Your task to perform on an android device: check android version Image 0: 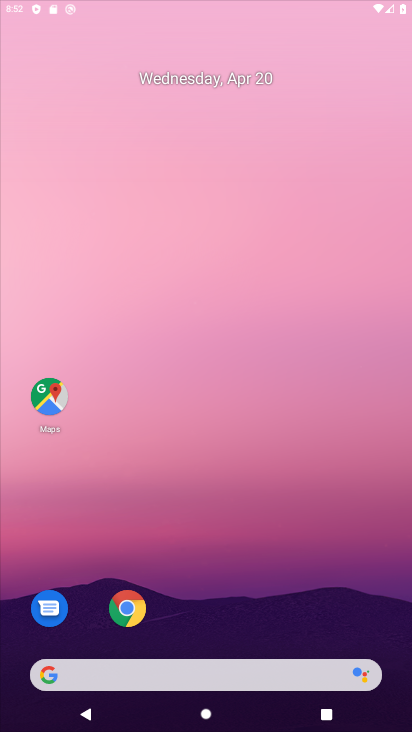
Step 0: drag from (201, 414) to (193, 71)
Your task to perform on an android device: check android version Image 1: 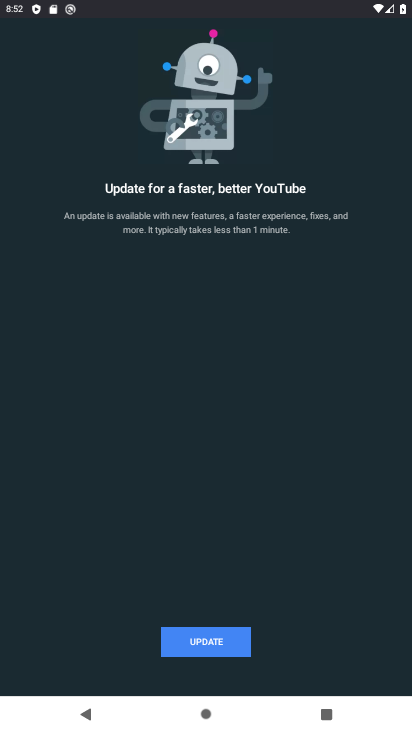
Step 1: press back button
Your task to perform on an android device: check android version Image 2: 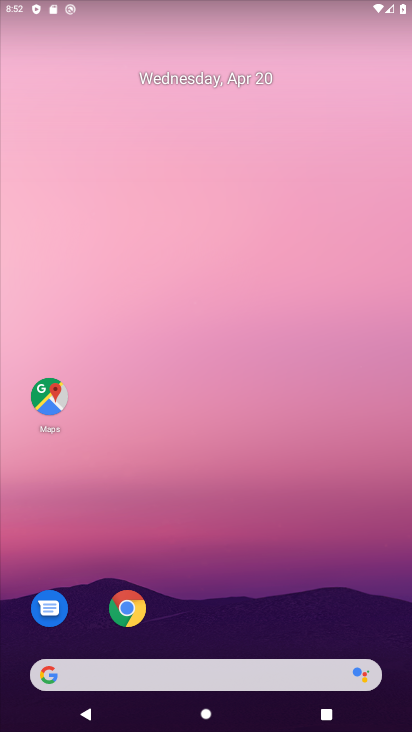
Step 2: drag from (190, 648) to (213, 81)
Your task to perform on an android device: check android version Image 3: 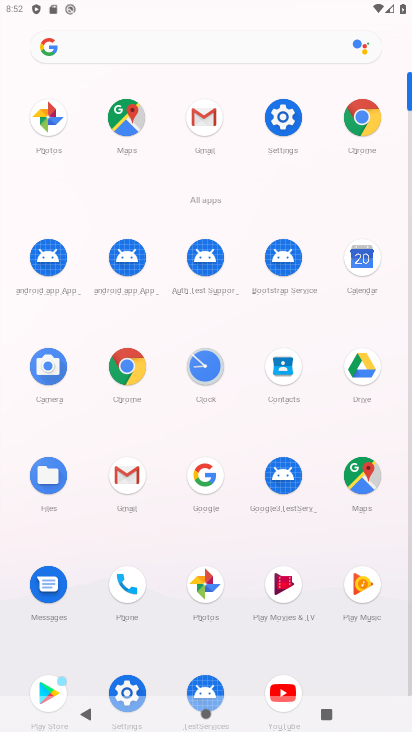
Step 3: click (278, 121)
Your task to perform on an android device: check android version Image 4: 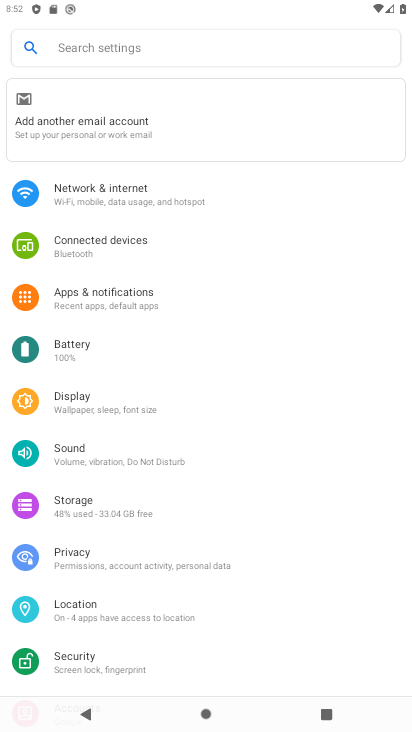
Step 4: drag from (103, 596) to (192, 166)
Your task to perform on an android device: check android version Image 5: 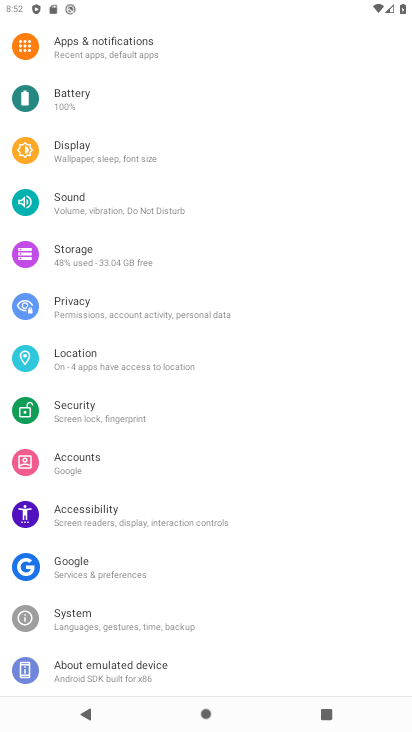
Step 5: drag from (101, 576) to (158, 311)
Your task to perform on an android device: check android version Image 6: 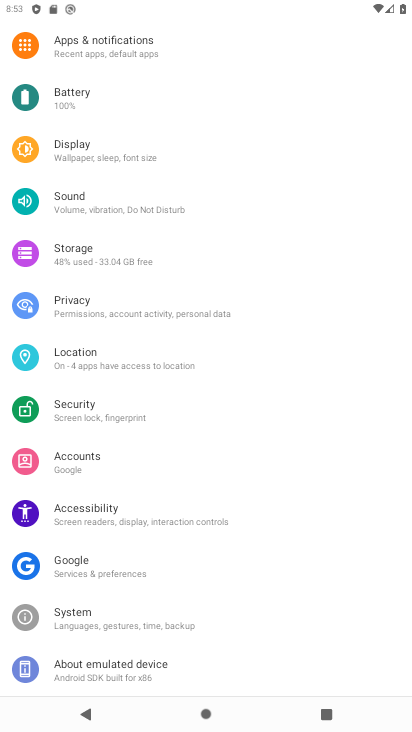
Step 6: click (130, 669)
Your task to perform on an android device: check android version Image 7: 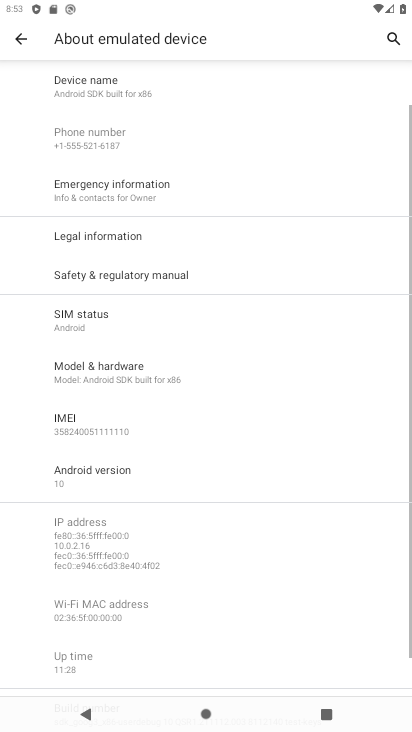
Step 7: click (148, 478)
Your task to perform on an android device: check android version Image 8: 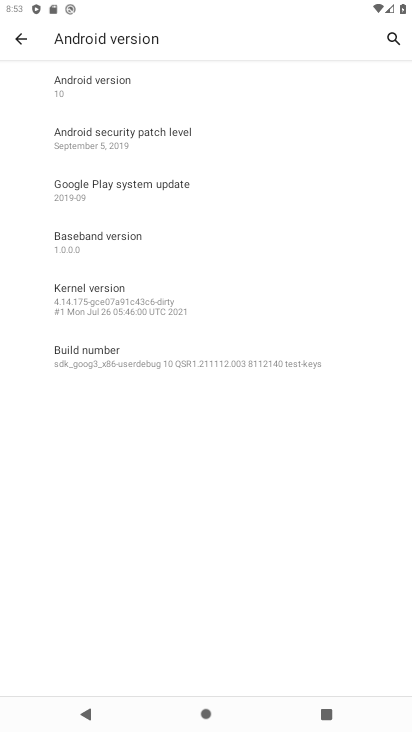
Step 8: task complete